Your task to perform on an android device: check the backup settings in the google photos Image 0: 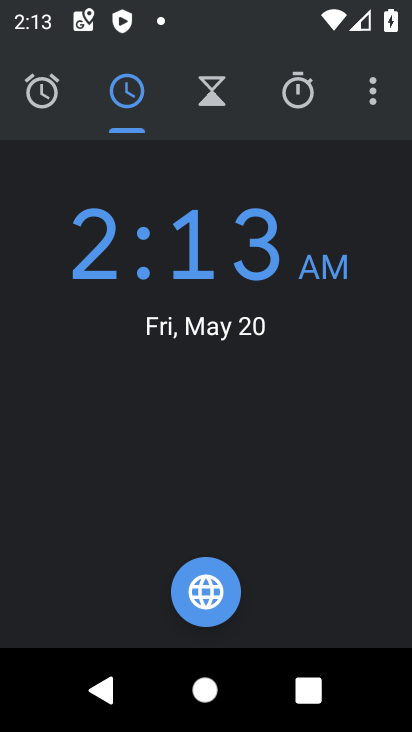
Step 0: press home button
Your task to perform on an android device: check the backup settings in the google photos Image 1: 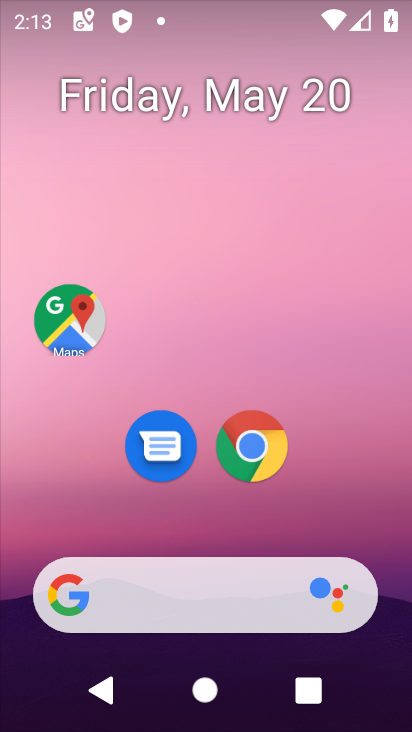
Step 1: drag from (372, 554) to (320, 0)
Your task to perform on an android device: check the backup settings in the google photos Image 2: 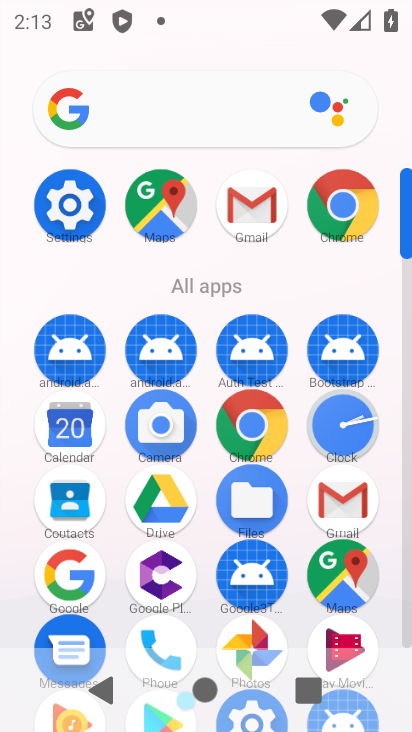
Step 2: click (409, 543)
Your task to perform on an android device: check the backup settings in the google photos Image 3: 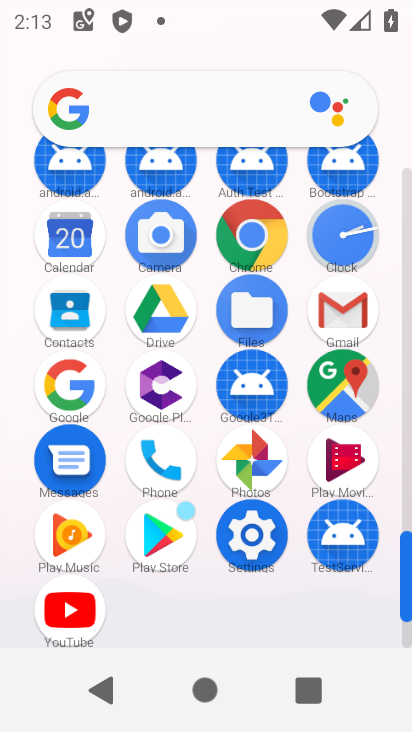
Step 3: click (250, 464)
Your task to perform on an android device: check the backup settings in the google photos Image 4: 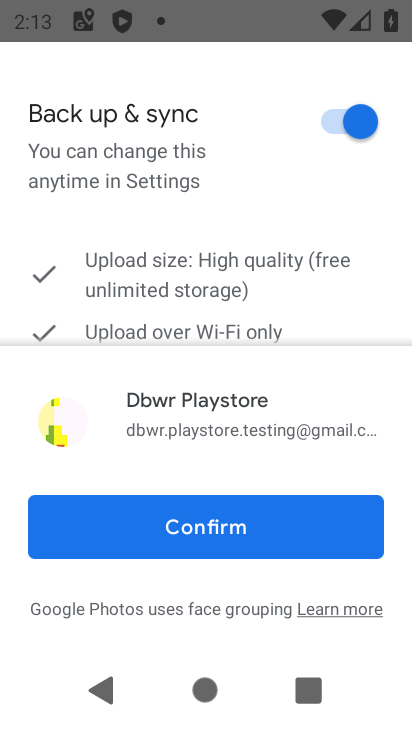
Step 4: click (216, 529)
Your task to perform on an android device: check the backup settings in the google photos Image 5: 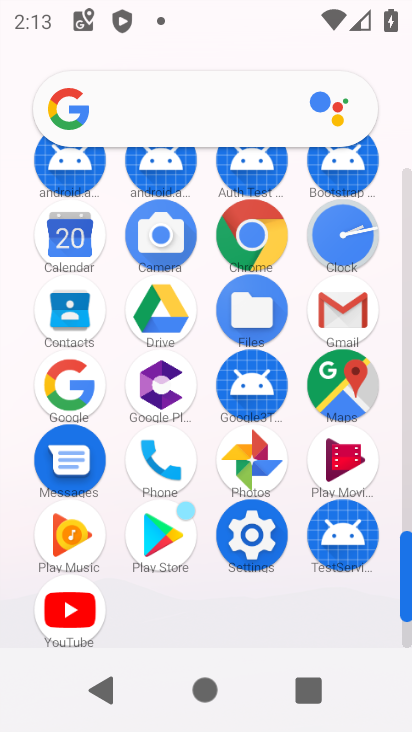
Step 5: click (252, 463)
Your task to perform on an android device: check the backup settings in the google photos Image 6: 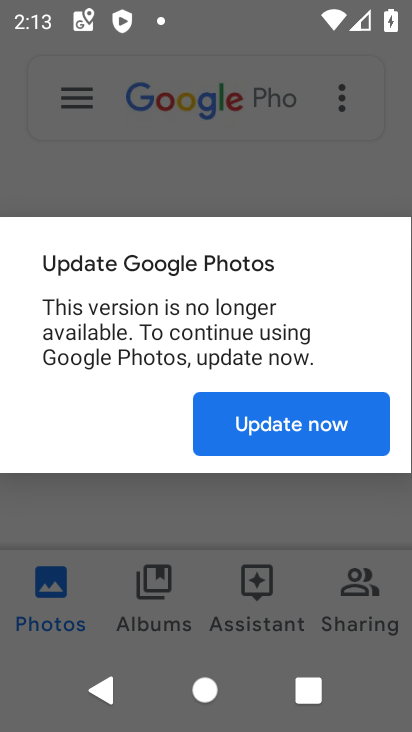
Step 6: click (271, 440)
Your task to perform on an android device: check the backup settings in the google photos Image 7: 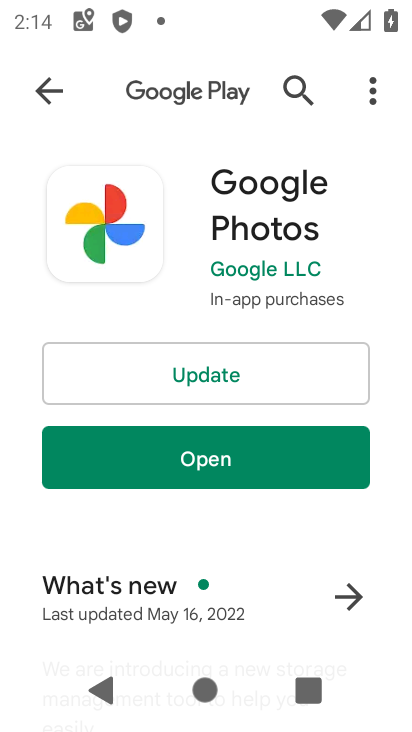
Step 7: click (191, 462)
Your task to perform on an android device: check the backup settings in the google photos Image 8: 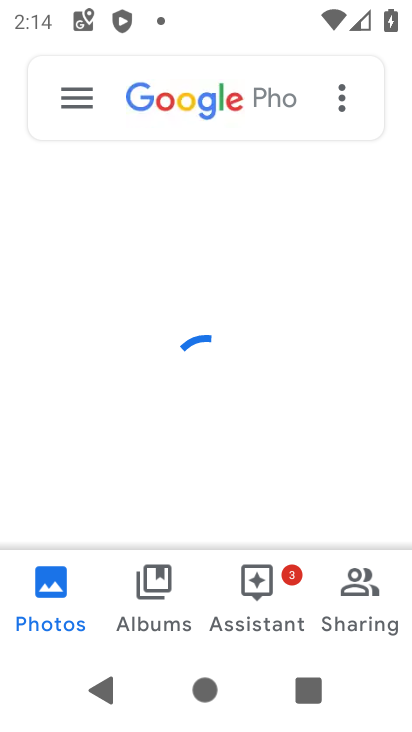
Step 8: click (73, 102)
Your task to perform on an android device: check the backup settings in the google photos Image 9: 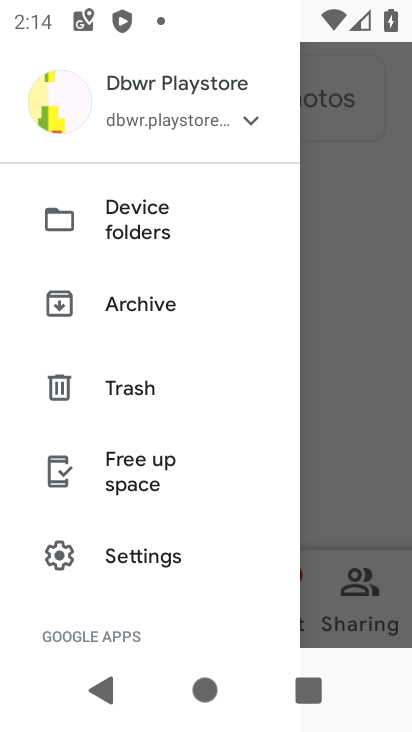
Step 9: click (127, 559)
Your task to perform on an android device: check the backup settings in the google photos Image 10: 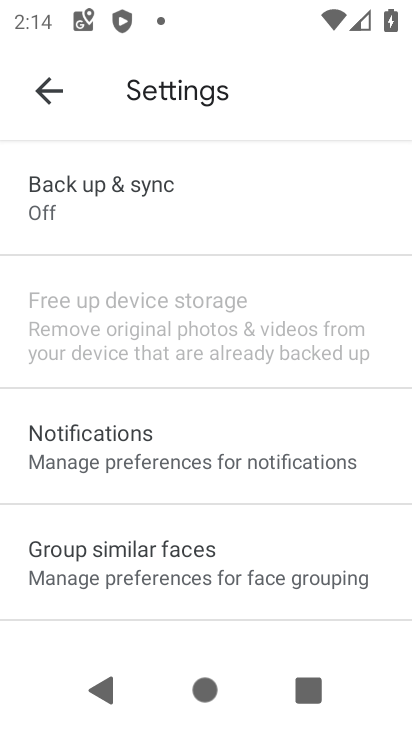
Step 10: click (74, 200)
Your task to perform on an android device: check the backup settings in the google photos Image 11: 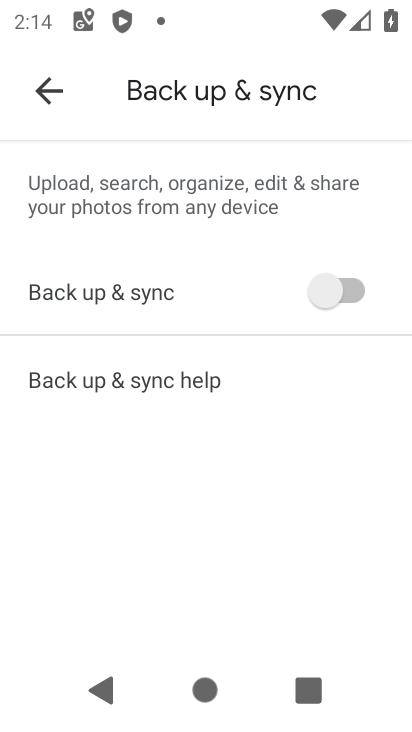
Step 11: task complete